Your task to perform on an android device: open device folders in google photos Image 0: 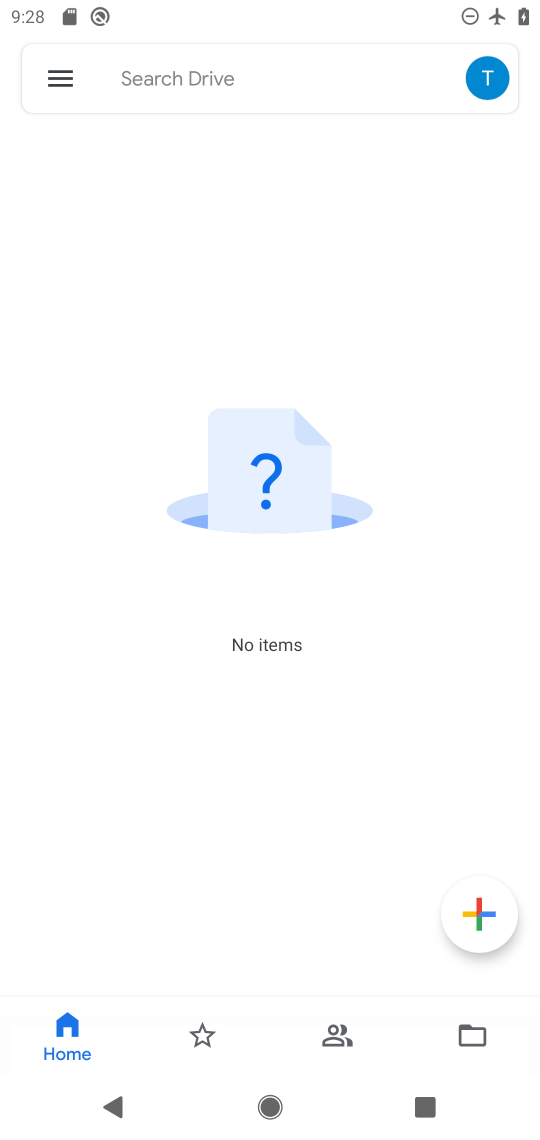
Step 0: press home button
Your task to perform on an android device: open device folders in google photos Image 1: 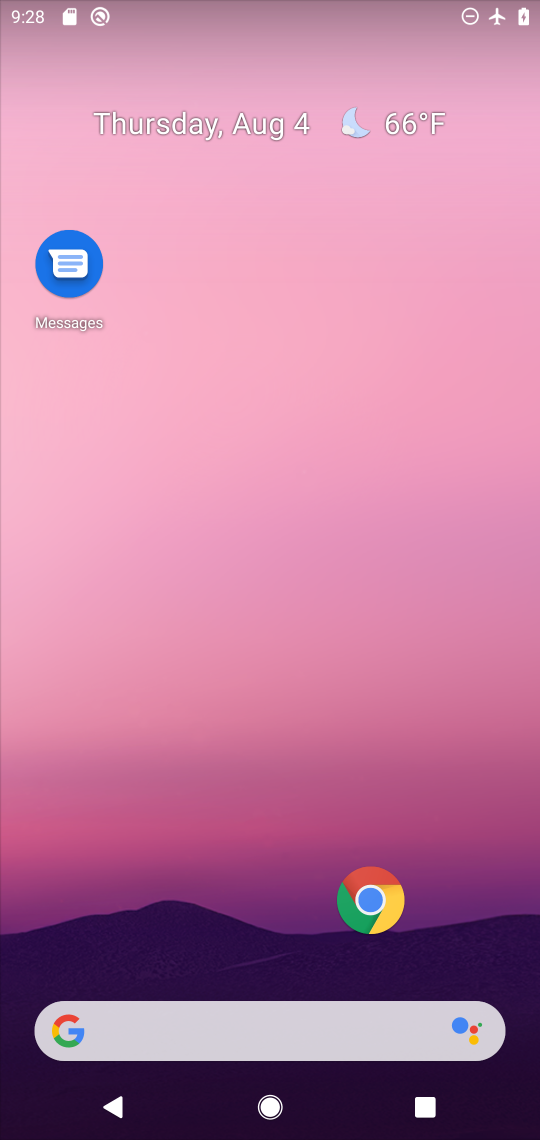
Step 1: drag from (285, 1074) to (373, 175)
Your task to perform on an android device: open device folders in google photos Image 2: 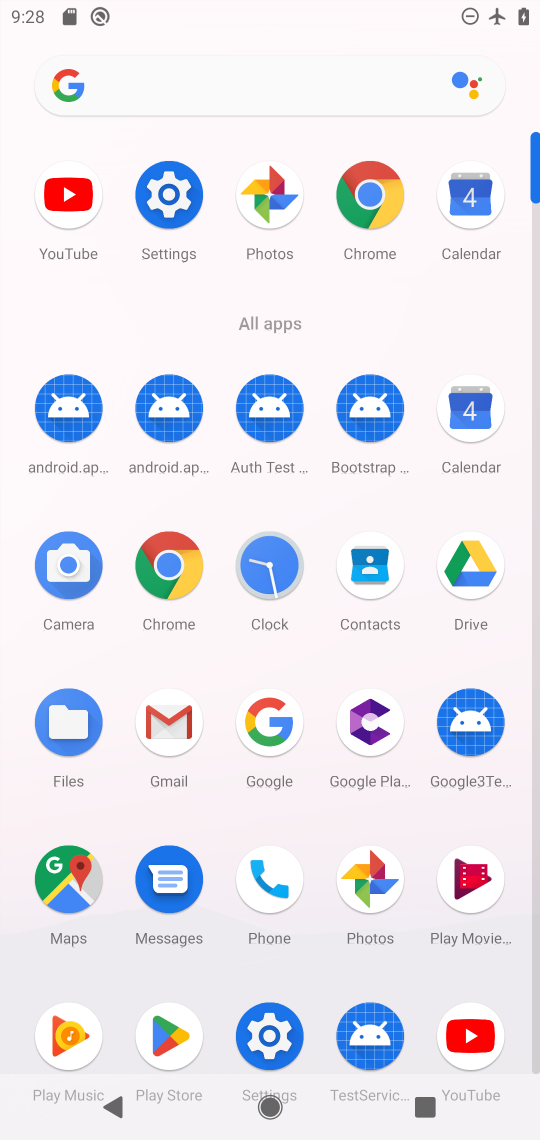
Step 2: click (364, 871)
Your task to perform on an android device: open device folders in google photos Image 3: 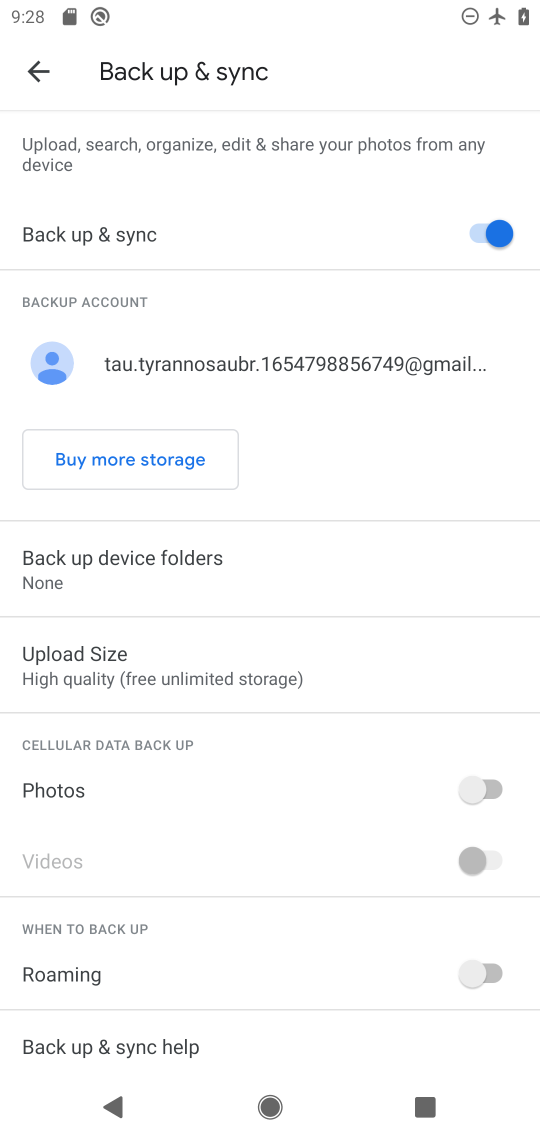
Step 3: press back button
Your task to perform on an android device: open device folders in google photos Image 4: 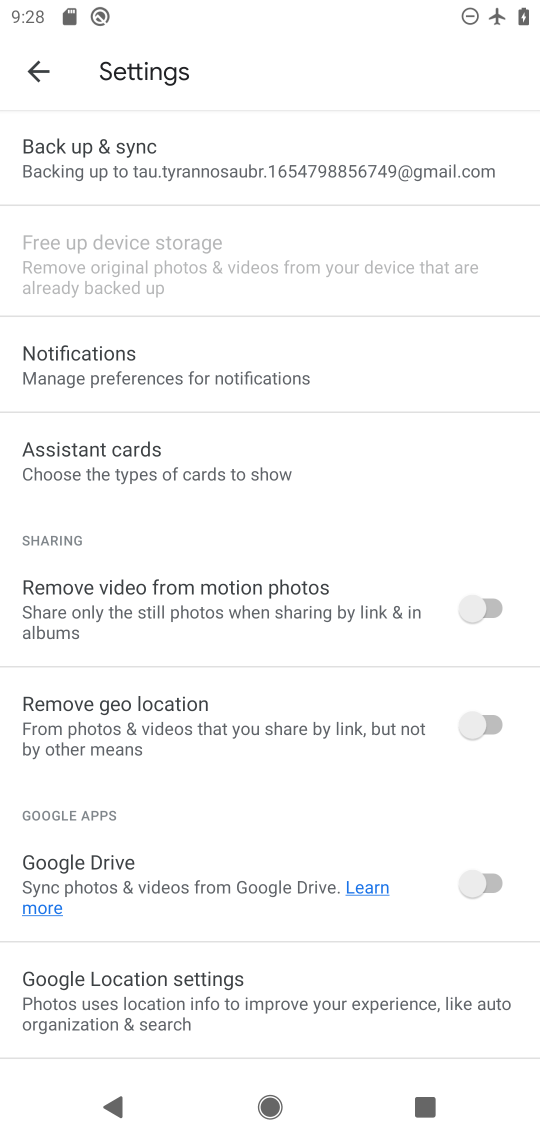
Step 4: press back button
Your task to perform on an android device: open device folders in google photos Image 5: 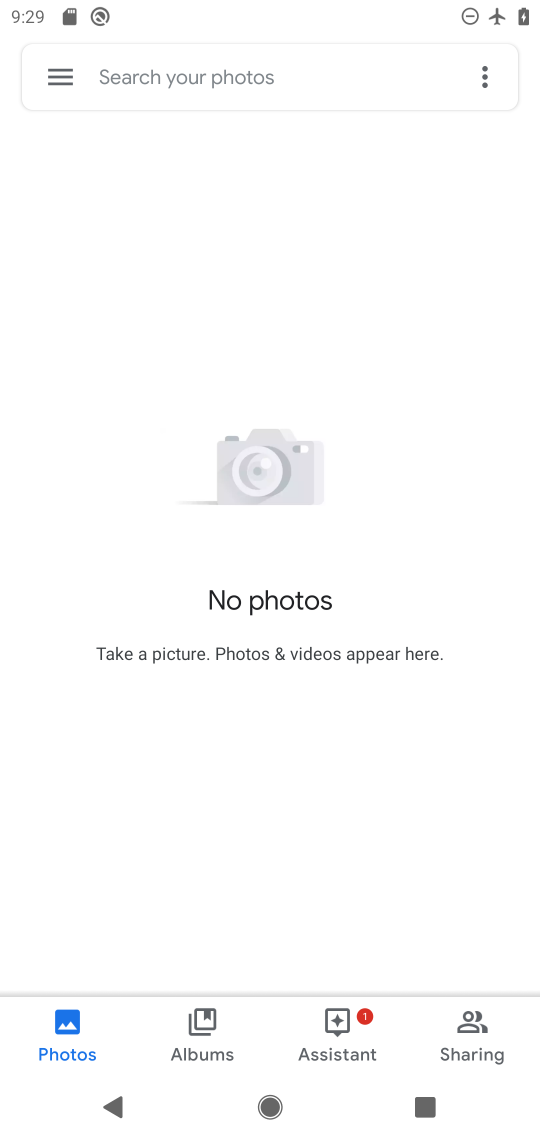
Step 5: click (56, 73)
Your task to perform on an android device: open device folders in google photos Image 6: 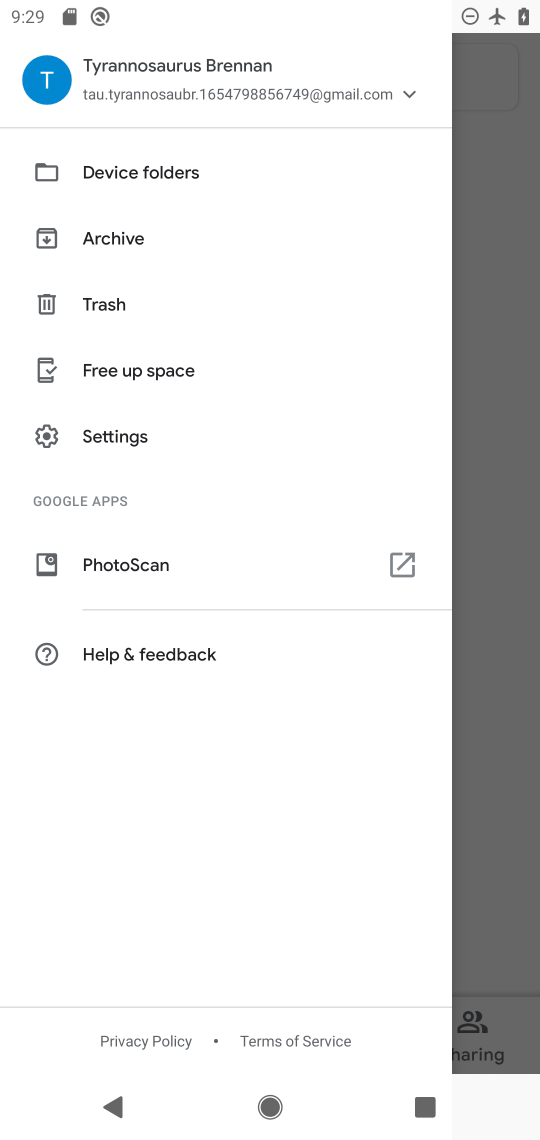
Step 6: click (134, 165)
Your task to perform on an android device: open device folders in google photos Image 7: 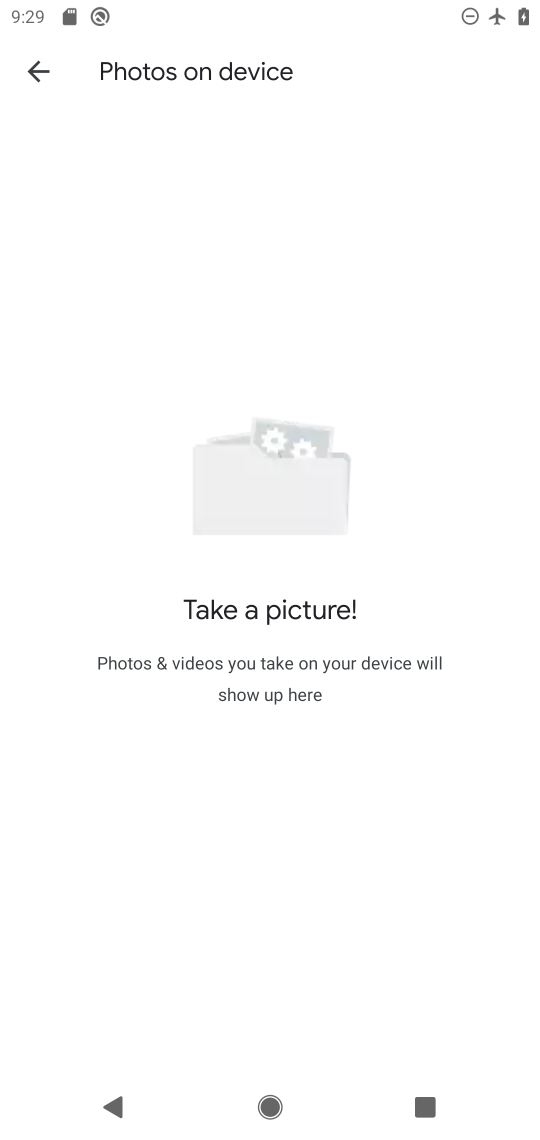
Step 7: task complete